Your task to perform on an android device: Clear the shopping cart on walmart.com. Search for "asus rog" on walmart.com, select the first entry, and add it to the cart. Image 0: 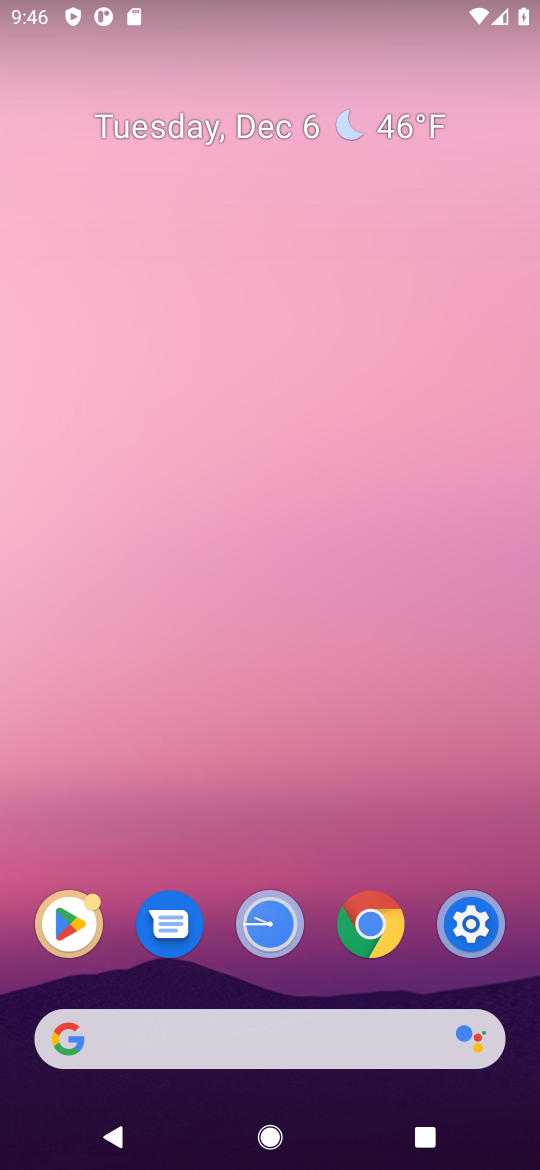
Step 0: click (293, 1024)
Your task to perform on an android device: Clear the shopping cart on walmart.com. Search for "asus rog" on walmart.com, select the first entry, and add it to the cart. Image 1: 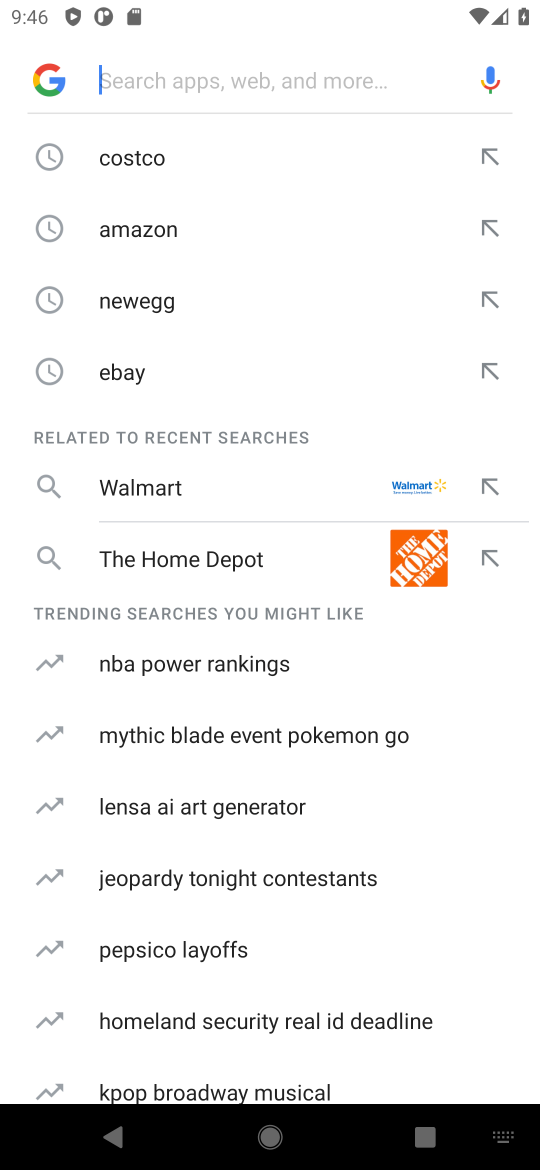
Step 1: click (237, 488)
Your task to perform on an android device: Clear the shopping cart on walmart.com. Search for "asus rog" on walmart.com, select the first entry, and add it to the cart. Image 2: 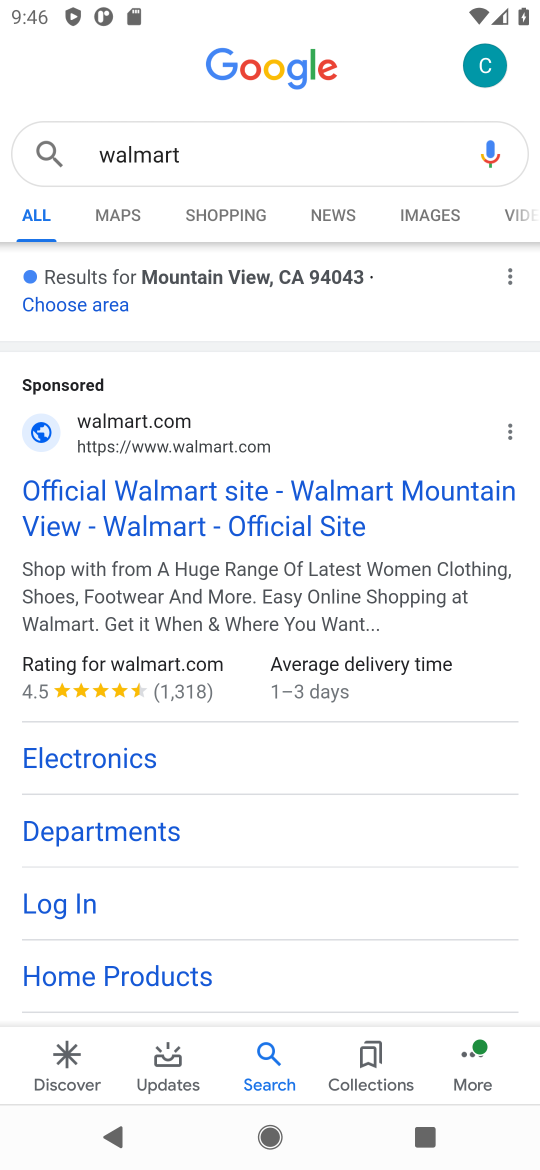
Step 2: click (272, 505)
Your task to perform on an android device: Clear the shopping cart on walmart.com. Search for "asus rog" on walmart.com, select the first entry, and add it to the cart. Image 3: 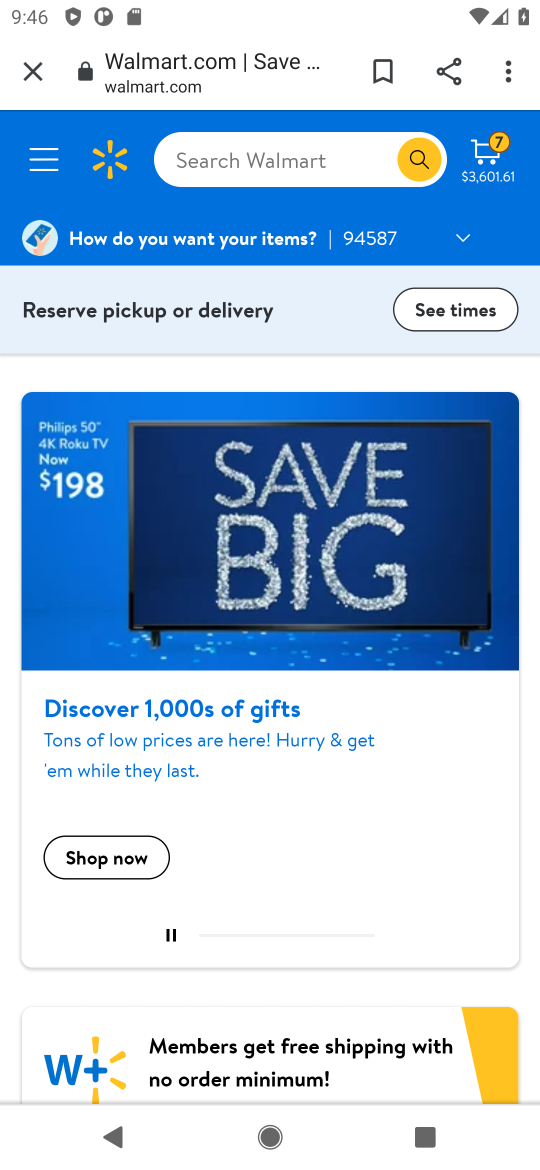
Step 3: click (258, 166)
Your task to perform on an android device: Clear the shopping cart on walmart.com. Search for "asus rog" on walmart.com, select the first entry, and add it to the cart. Image 4: 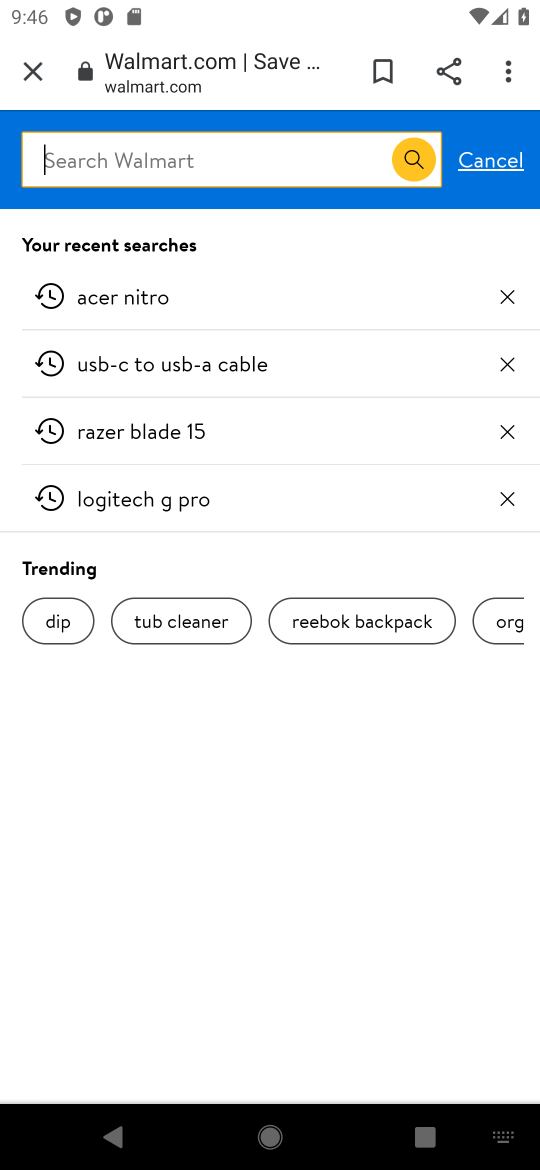
Step 4: type "asus ror"
Your task to perform on an android device: Clear the shopping cart on walmart.com. Search for "asus rog" on walmart.com, select the first entry, and add it to the cart. Image 5: 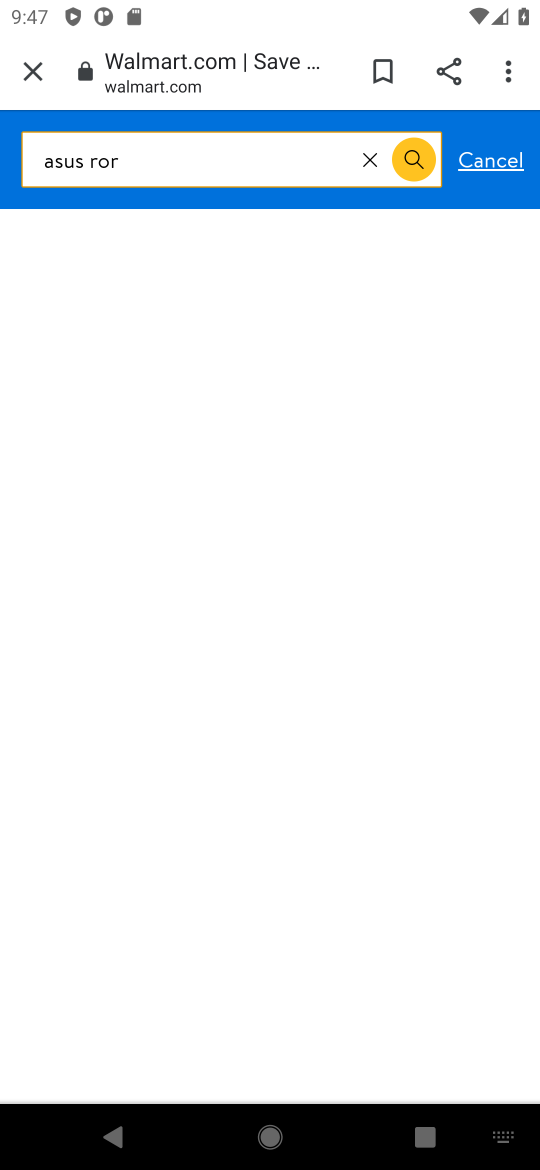
Step 5: task complete